Your task to perform on an android device: What's the weather? Image 0: 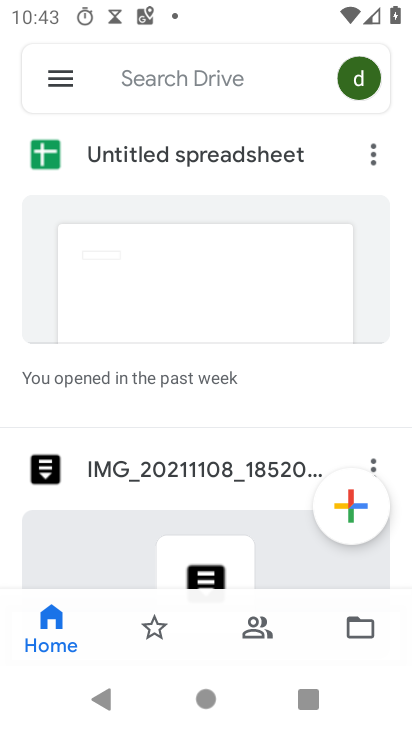
Step 0: press home button
Your task to perform on an android device: What's the weather? Image 1: 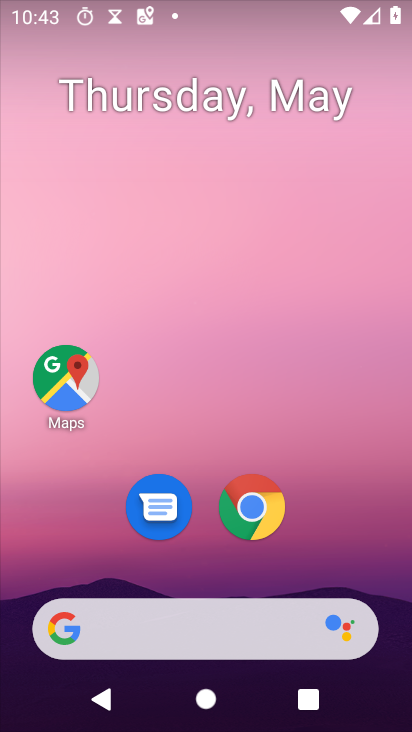
Step 1: click (156, 643)
Your task to perform on an android device: What's the weather? Image 2: 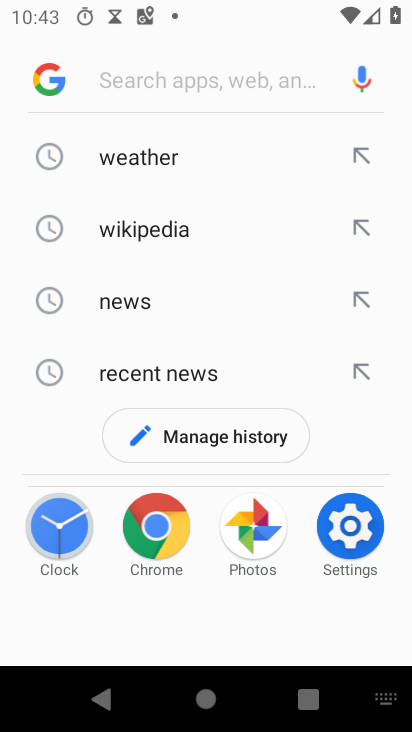
Step 2: click (114, 162)
Your task to perform on an android device: What's the weather? Image 3: 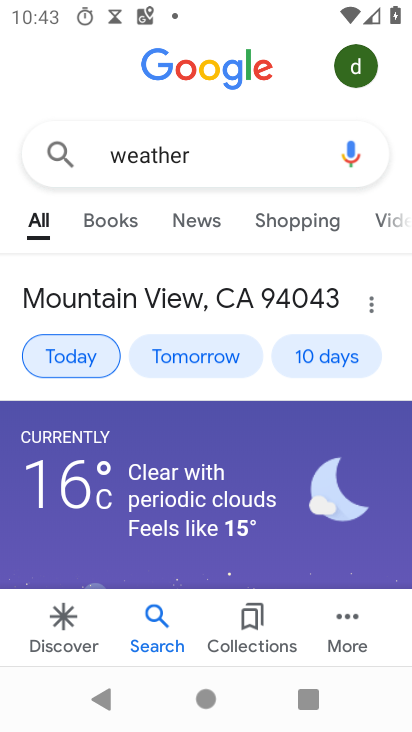
Step 3: click (226, 183)
Your task to perform on an android device: What's the weather? Image 4: 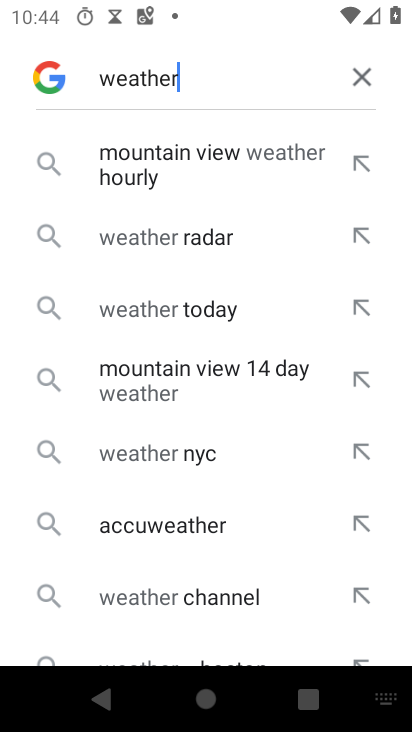
Step 4: click (243, 303)
Your task to perform on an android device: What's the weather? Image 5: 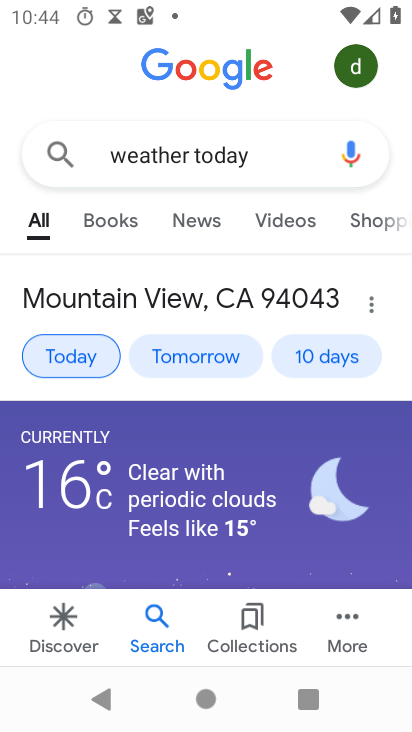
Step 5: task complete